Your task to perform on an android device: find snoozed emails in the gmail app Image 0: 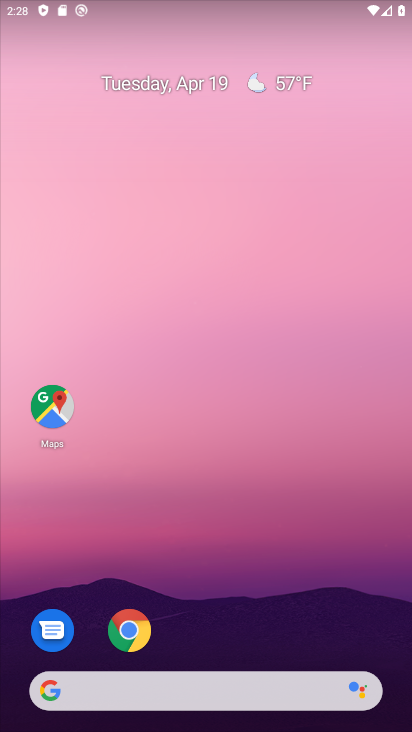
Step 0: drag from (206, 599) to (231, 105)
Your task to perform on an android device: find snoozed emails in the gmail app Image 1: 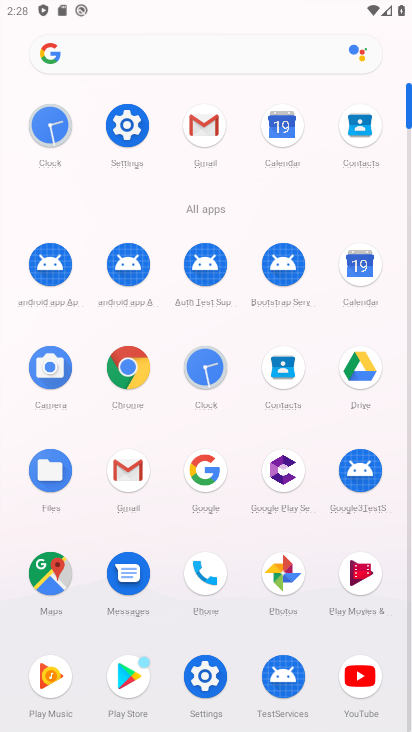
Step 1: click (131, 470)
Your task to perform on an android device: find snoozed emails in the gmail app Image 2: 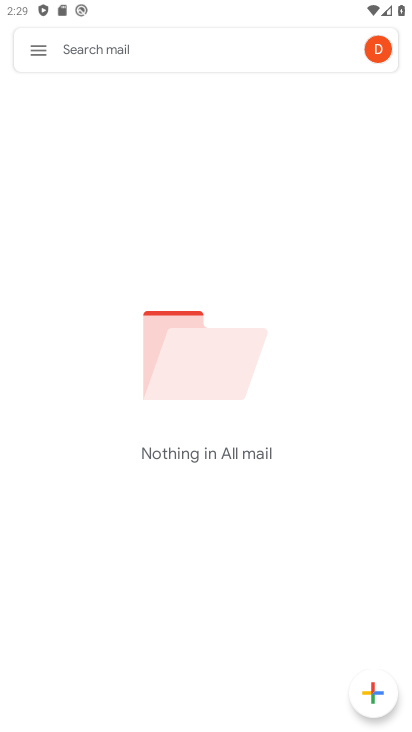
Step 2: click (40, 43)
Your task to perform on an android device: find snoozed emails in the gmail app Image 3: 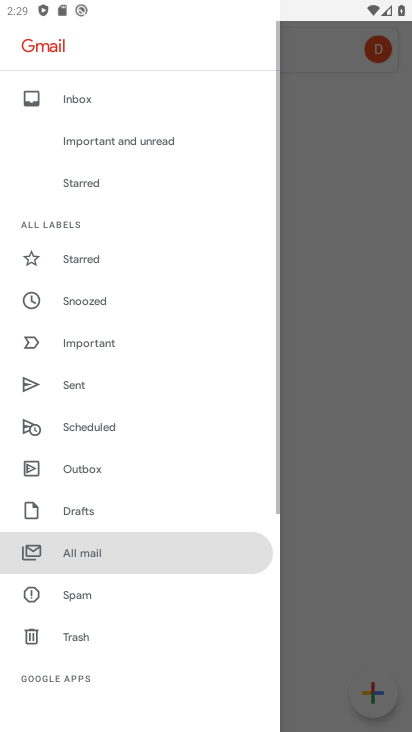
Step 3: click (139, 296)
Your task to perform on an android device: find snoozed emails in the gmail app Image 4: 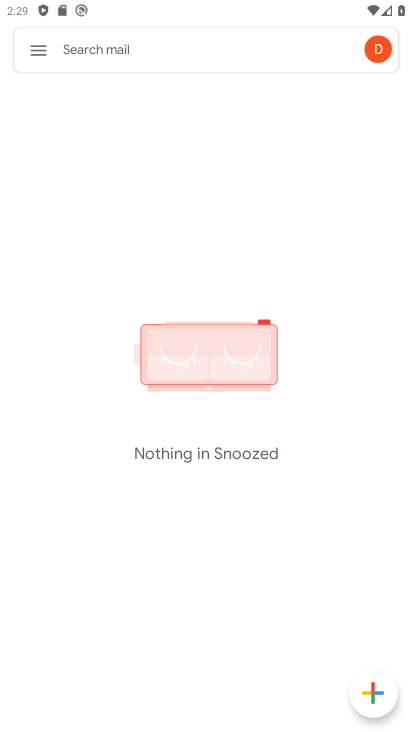
Step 4: task complete